Your task to perform on an android device: manage bookmarks in the chrome app Image 0: 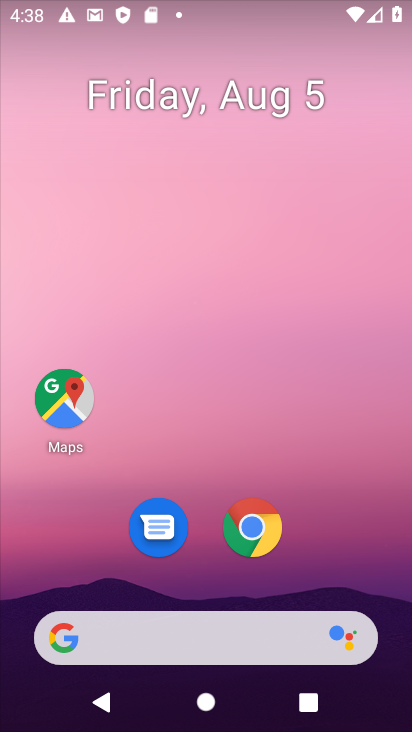
Step 0: drag from (180, 592) to (165, 66)
Your task to perform on an android device: manage bookmarks in the chrome app Image 1: 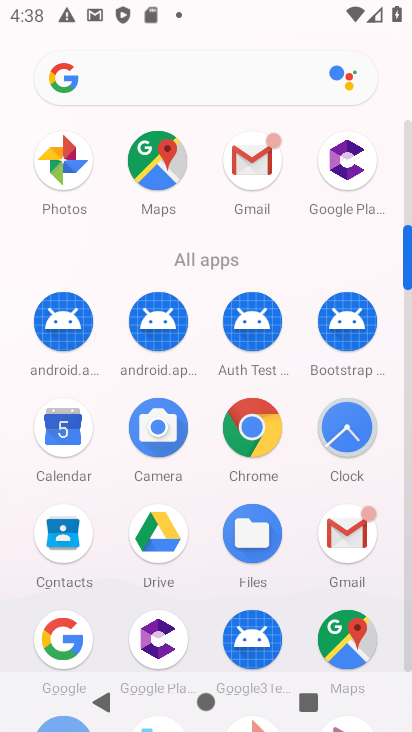
Step 1: click (253, 418)
Your task to perform on an android device: manage bookmarks in the chrome app Image 2: 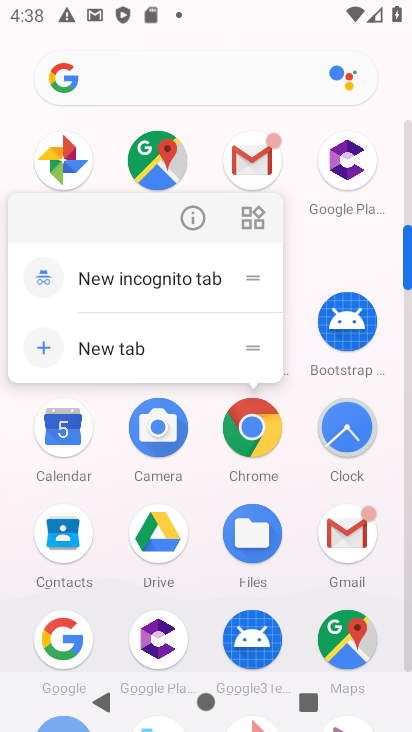
Step 2: click (203, 213)
Your task to perform on an android device: manage bookmarks in the chrome app Image 3: 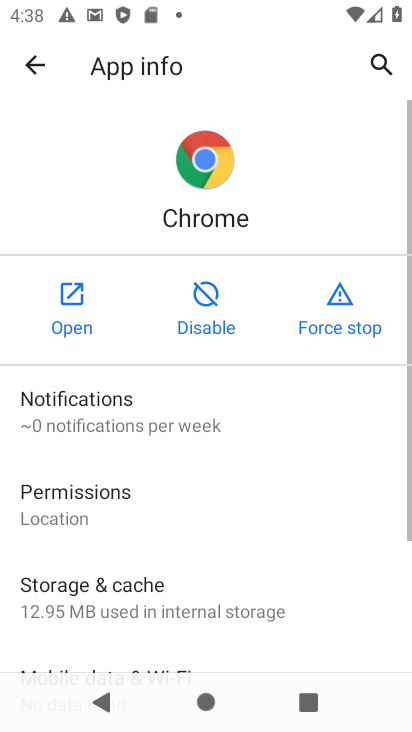
Step 3: click (68, 279)
Your task to perform on an android device: manage bookmarks in the chrome app Image 4: 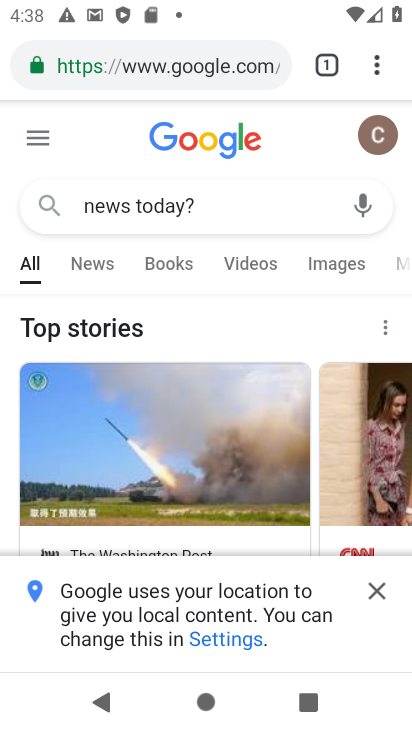
Step 4: drag from (372, 62) to (206, 259)
Your task to perform on an android device: manage bookmarks in the chrome app Image 5: 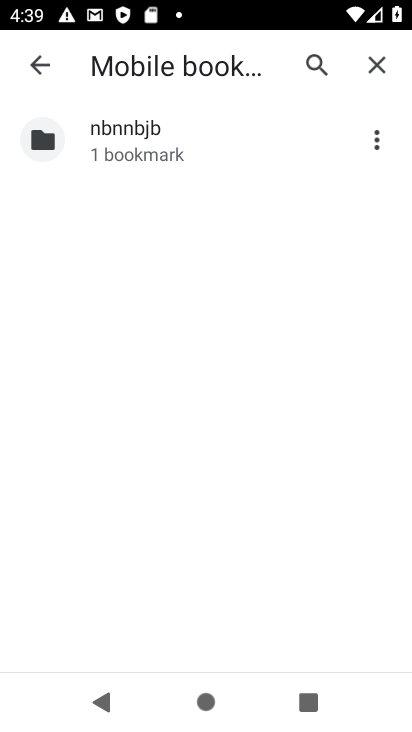
Step 5: drag from (195, 444) to (195, 222)
Your task to perform on an android device: manage bookmarks in the chrome app Image 6: 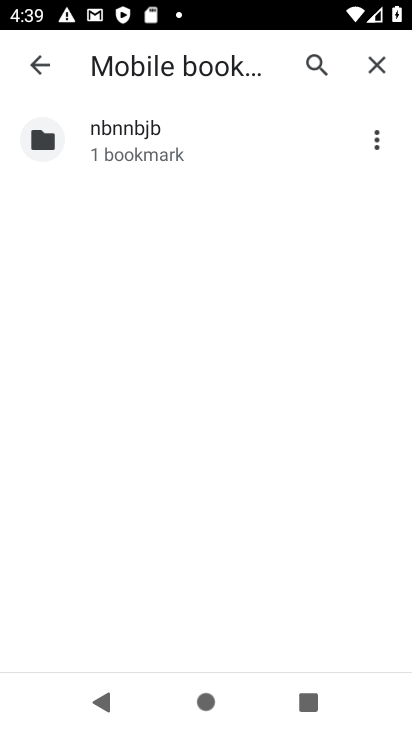
Step 6: click (364, 146)
Your task to perform on an android device: manage bookmarks in the chrome app Image 7: 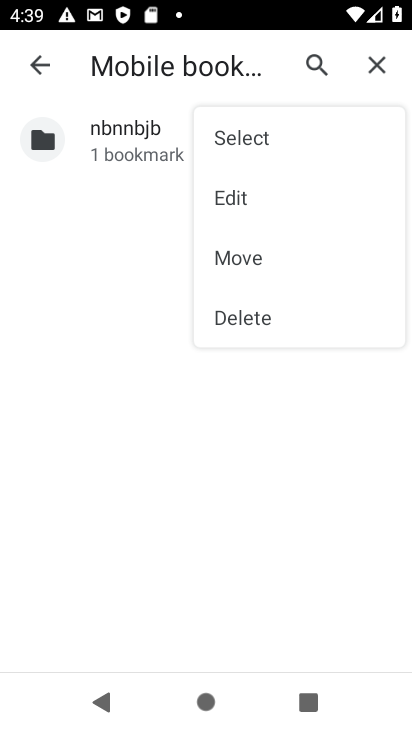
Step 7: click (87, 368)
Your task to perform on an android device: manage bookmarks in the chrome app Image 8: 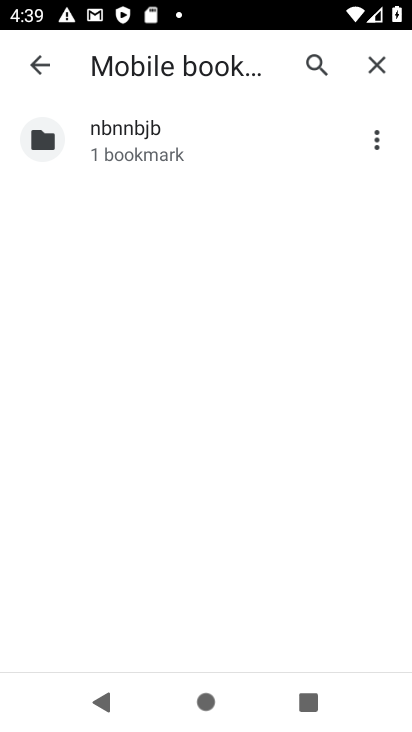
Step 8: click (375, 145)
Your task to perform on an android device: manage bookmarks in the chrome app Image 9: 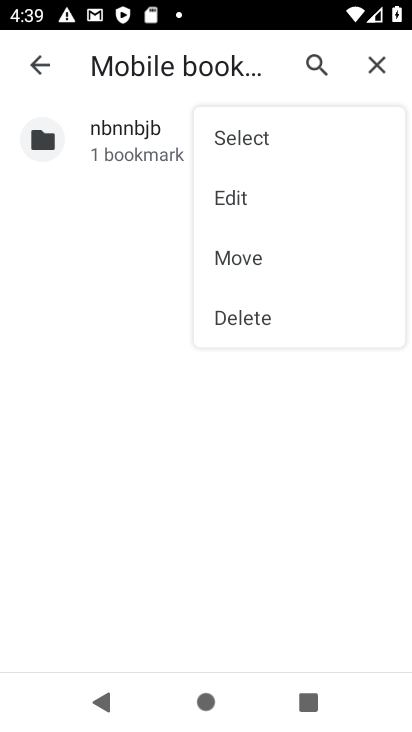
Step 9: click (99, 199)
Your task to perform on an android device: manage bookmarks in the chrome app Image 10: 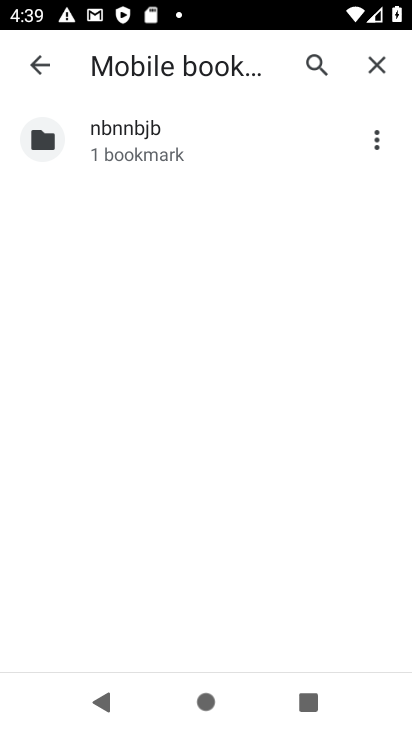
Step 10: click (372, 62)
Your task to perform on an android device: manage bookmarks in the chrome app Image 11: 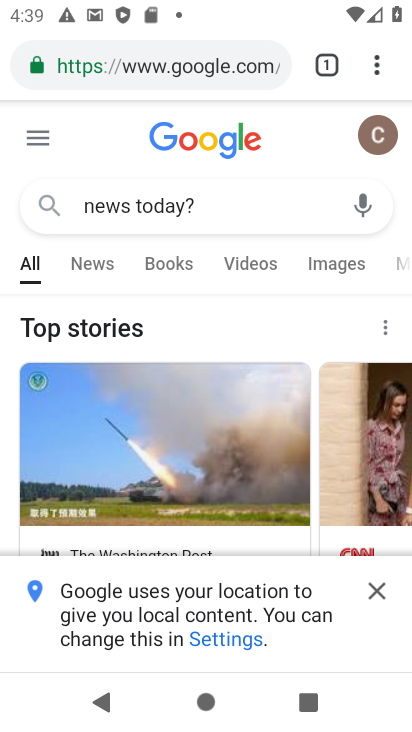
Step 11: task complete